Your task to perform on an android device: Go to Maps Image 0: 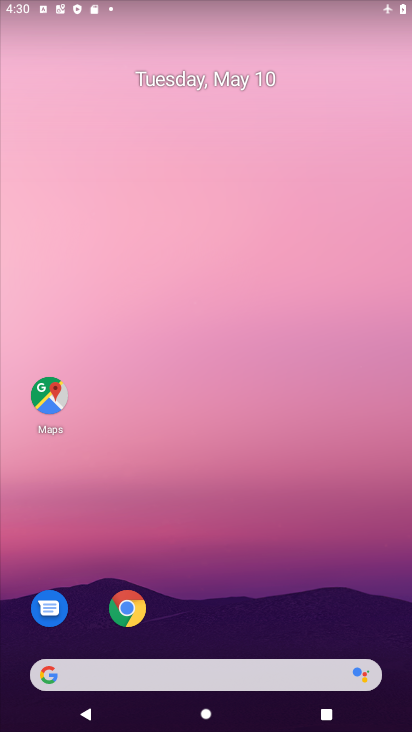
Step 0: click (50, 395)
Your task to perform on an android device: Go to Maps Image 1: 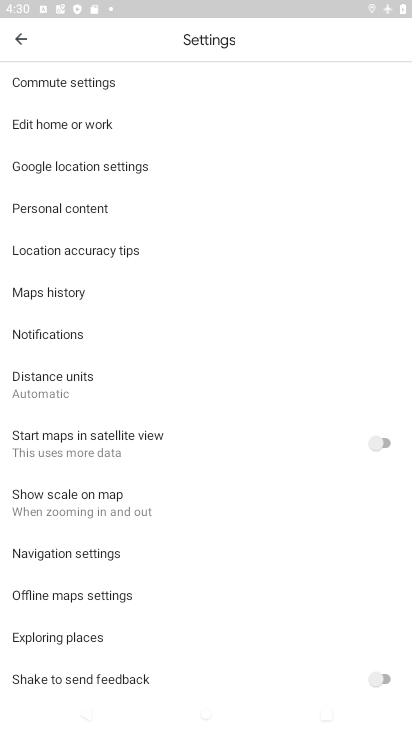
Step 1: task complete